Your task to perform on an android device: toggle javascript in the chrome app Image 0: 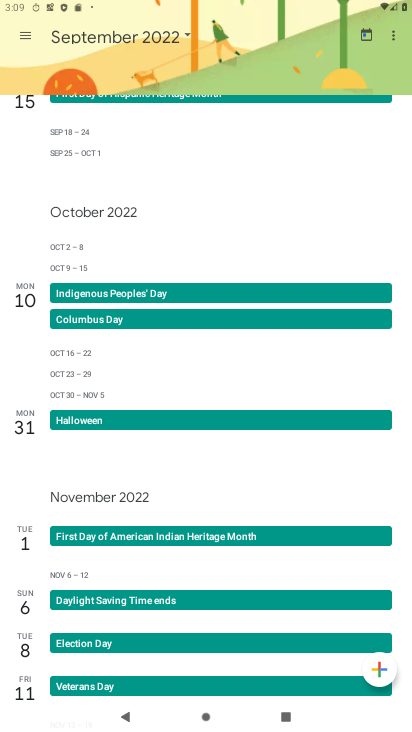
Step 0: press home button
Your task to perform on an android device: toggle javascript in the chrome app Image 1: 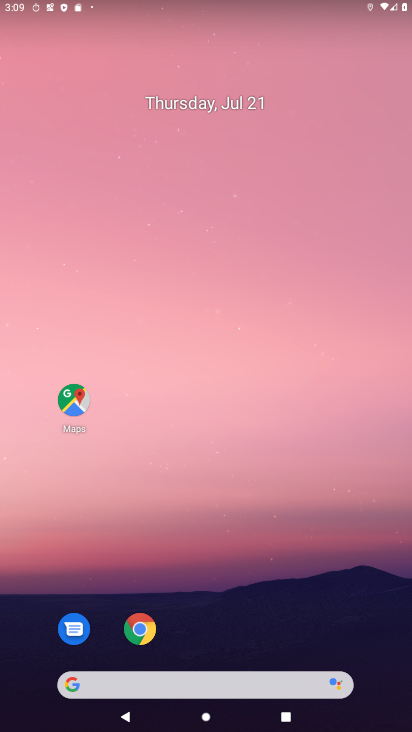
Step 1: drag from (285, 272) to (348, 0)
Your task to perform on an android device: toggle javascript in the chrome app Image 2: 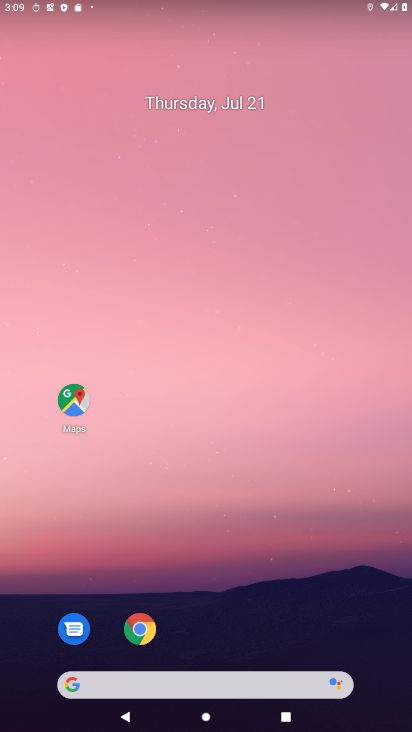
Step 2: drag from (207, 637) to (247, 18)
Your task to perform on an android device: toggle javascript in the chrome app Image 3: 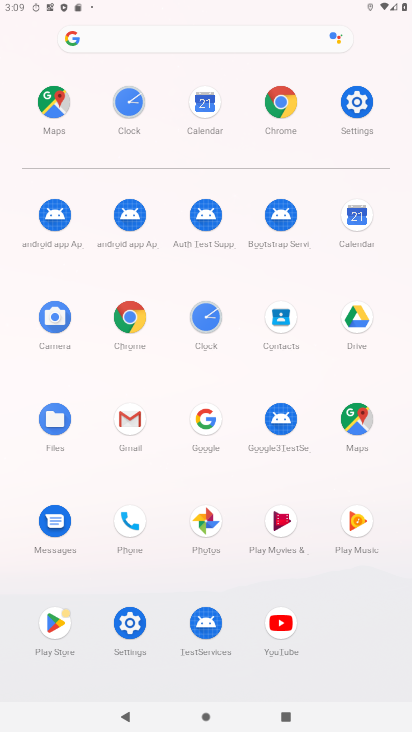
Step 3: click (124, 627)
Your task to perform on an android device: toggle javascript in the chrome app Image 4: 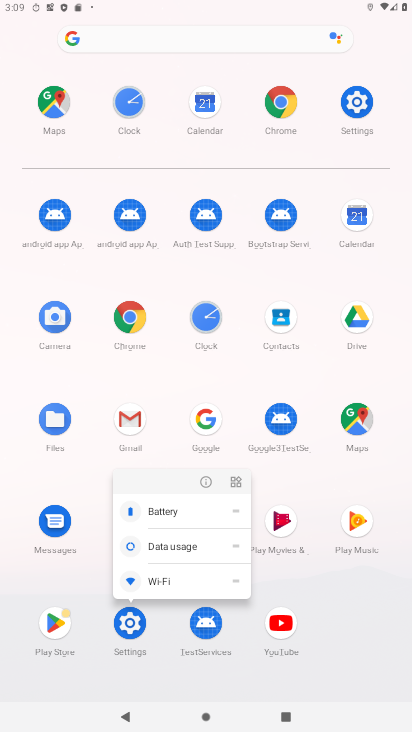
Step 4: click (124, 627)
Your task to perform on an android device: toggle javascript in the chrome app Image 5: 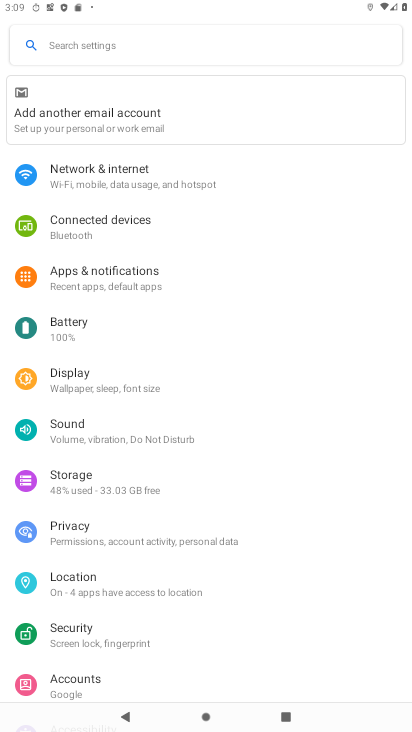
Step 5: press home button
Your task to perform on an android device: toggle javascript in the chrome app Image 6: 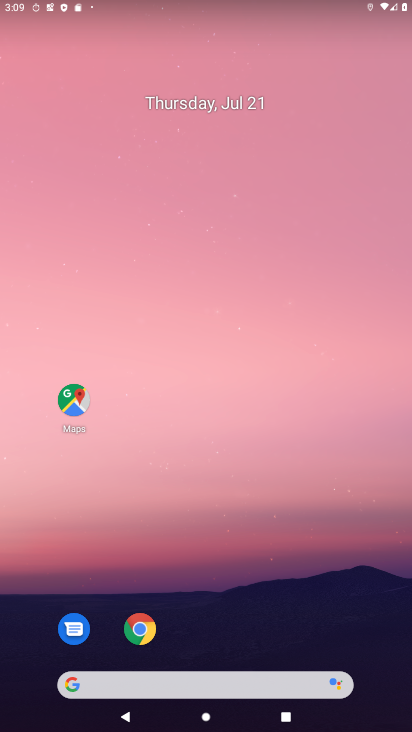
Step 6: click (159, 631)
Your task to perform on an android device: toggle javascript in the chrome app Image 7: 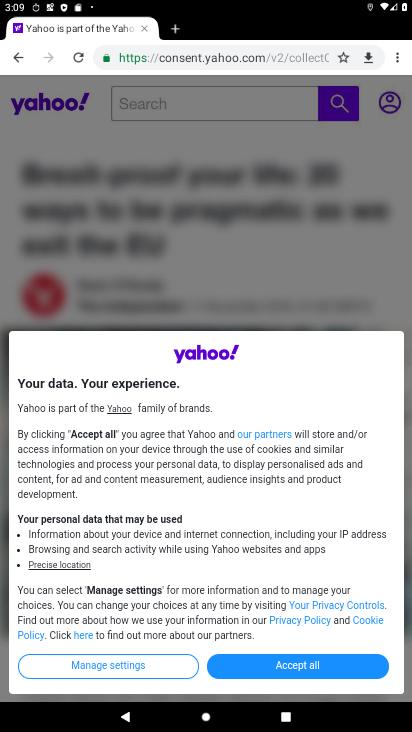
Step 7: click (398, 61)
Your task to perform on an android device: toggle javascript in the chrome app Image 8: 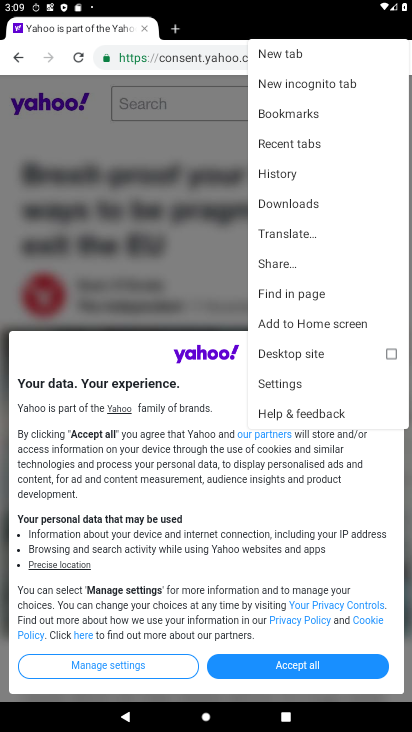
Step 8: click (287, 386)
Your task to perform on an android device: toggle javascript in the chrome app Image 9: 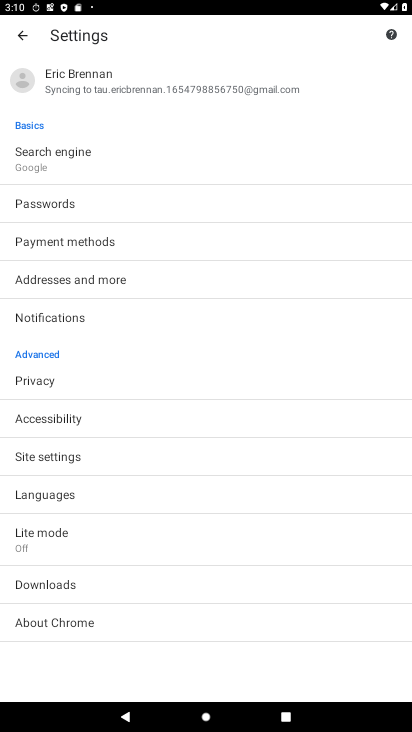
Step 9: click (78, 458)
Your task to perform on an android device: toggle javascript in the chrome app Image 10: 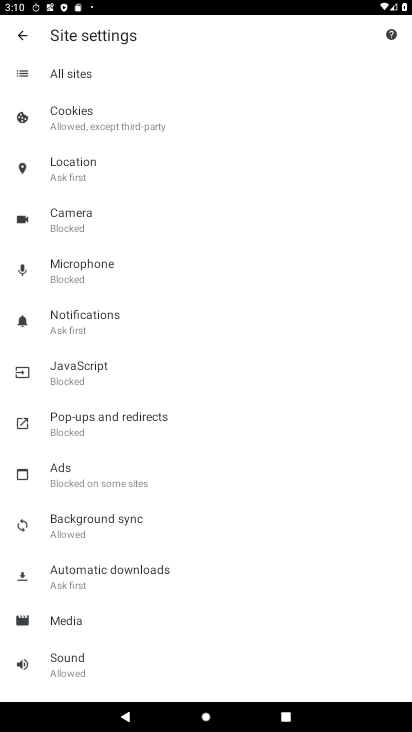
Step 10: click (84, 381)
Your task to perform on an android device: toggle javascript in the chrome app Image 11: 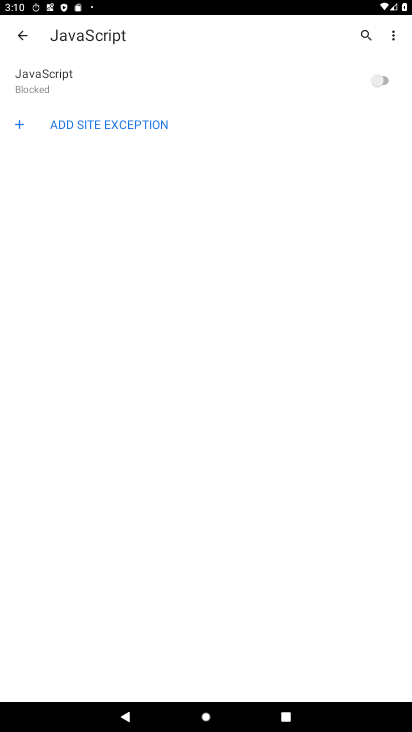
Step 11: click (397, 74)
Your task to perform on an android device: toggle javascript in the chrome app Image 12: 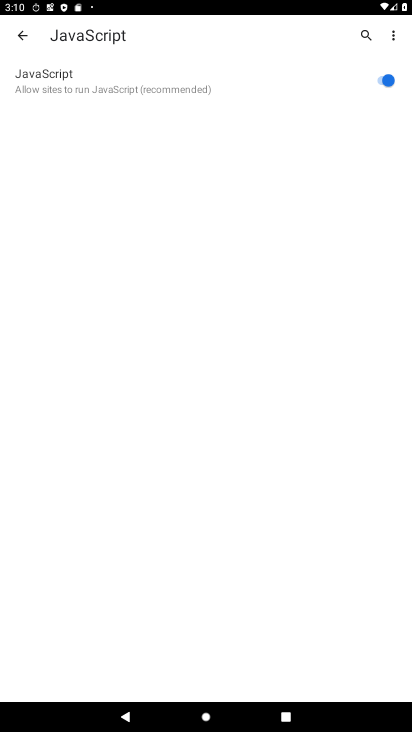
Step 12: task complete